Your task to perform on an android device: Open Yahoo.com Image 0: 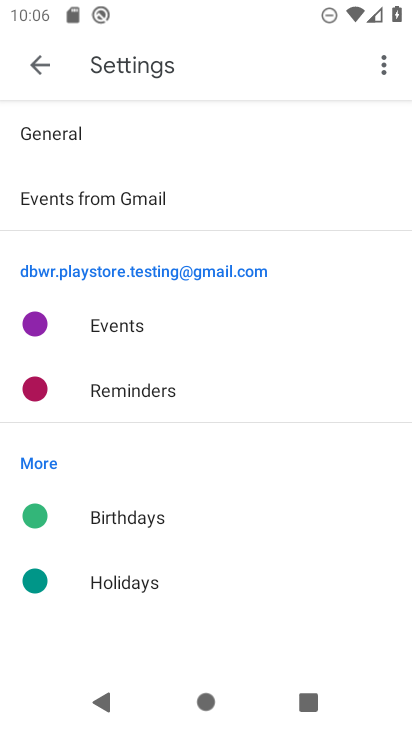
Step 0: press home button
Your task to perform on an android device: Open Yahoo.com Image 1: 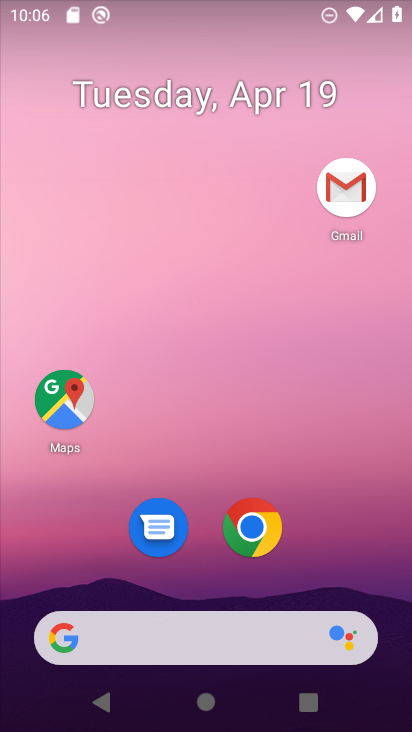
Step 1: drag from (346, 330) to (331, 115)
Your task to perform on an android device: Open Yahoo.com Image 2: 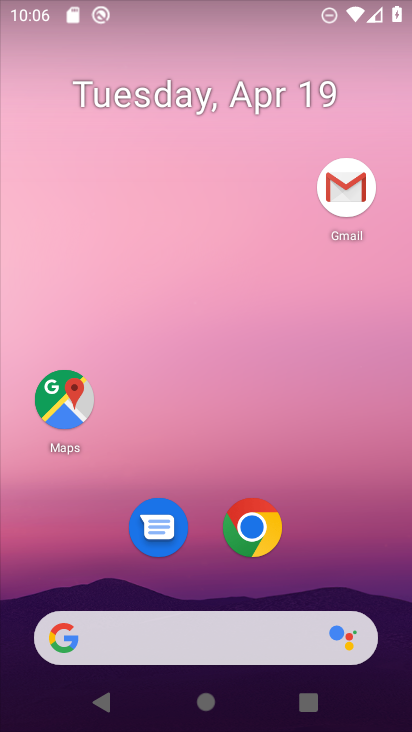
Step 2: click (279, 532)
Your task to perform on an android device: Open Yahoo.com Image 3: 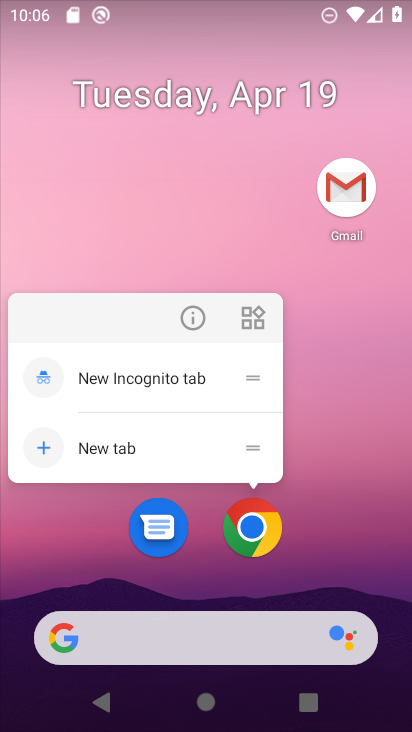
Step 3: click (282, 529)
Your task to perform on an android device: Open Yahoo.com Image 4: 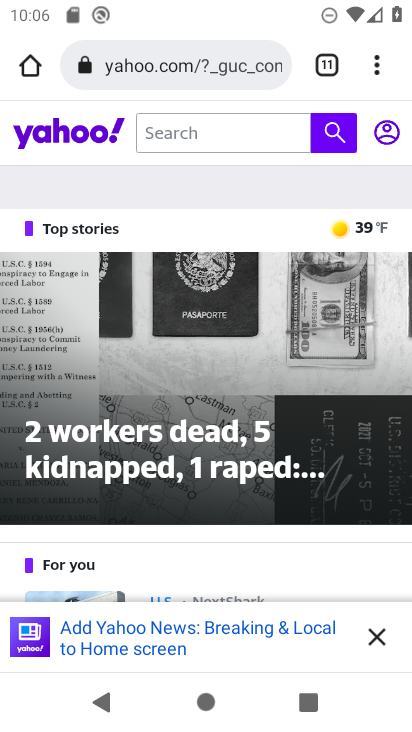
Step 4: task complete